Your task to perform on an android device: Find coffee shops on Maps Image 0: 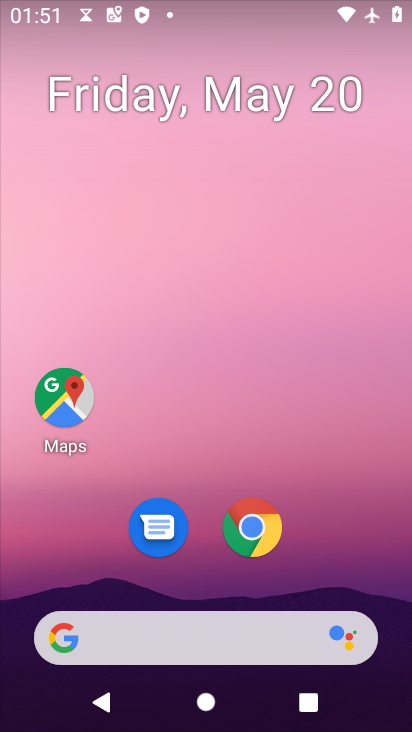
Step 0: press home button
Your task to perform on an android device: Find coffee shops on Maps Image 1: 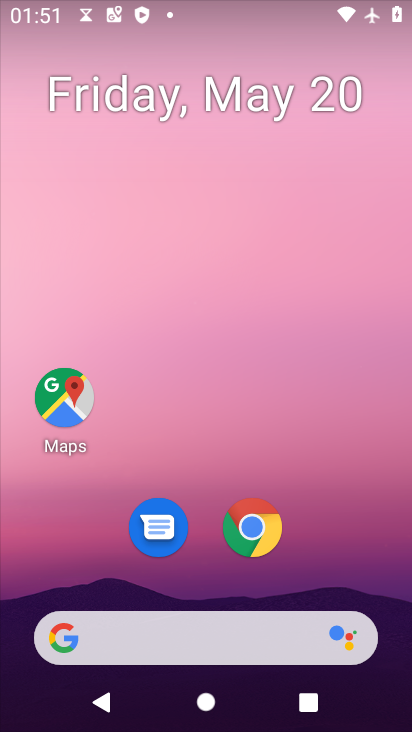
Step 1: click (75, 398)
Your task to perform on an android device: Find coffee shops on Maps Image 2: 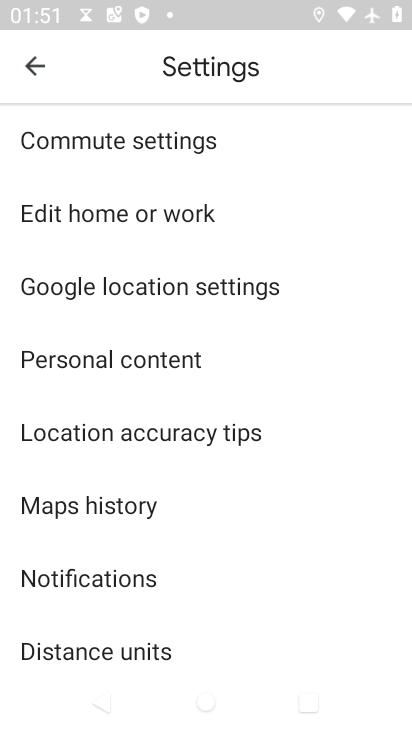
Step 2: click (33, 63)
Your task to perform on an android device: Find coffee shops on Maps Image 3: 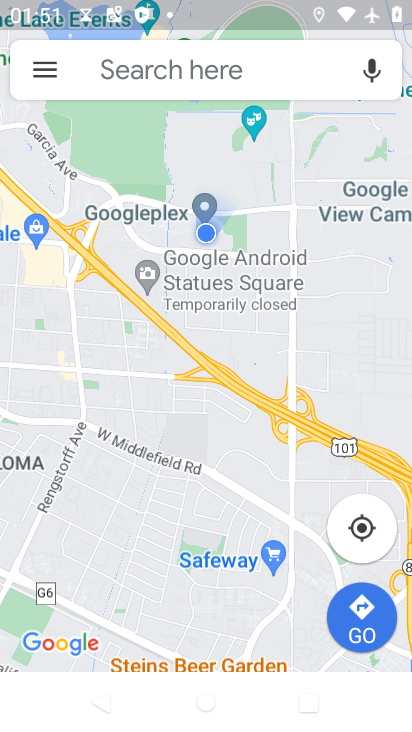
Step 3: click (187, 71)
Your task to perform on an android device: Find coffee shops on Maps Image 4: 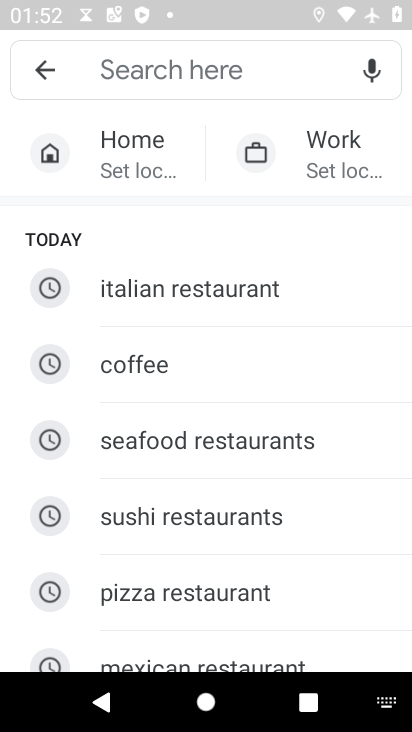
Step 4: click (138, 369)
Your task to perform on an android device: Find coffee shops on Maps Image 5: 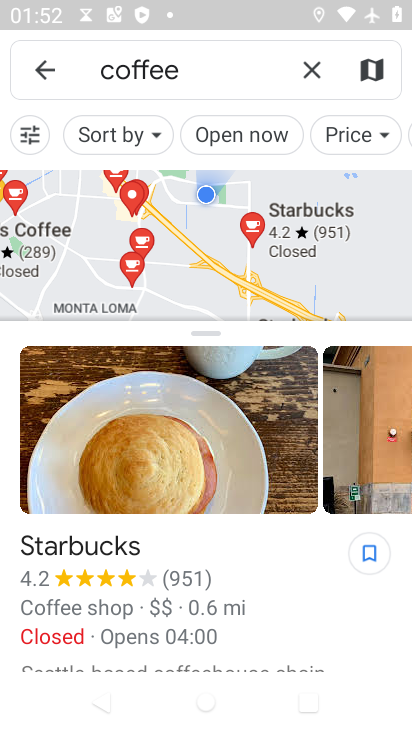
Step 5: task complete